Your task to perform on an android device: turn off improve location accuracy Image 0: 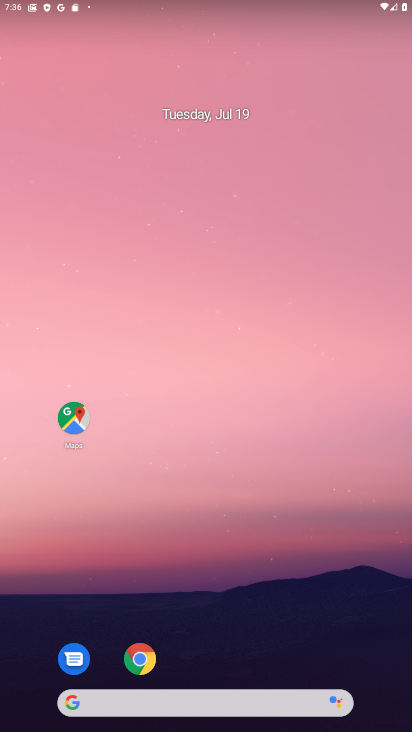
Step 0: click (147, 659)
Your task to perform on an android device: turn off improve location accuracy Image 1: 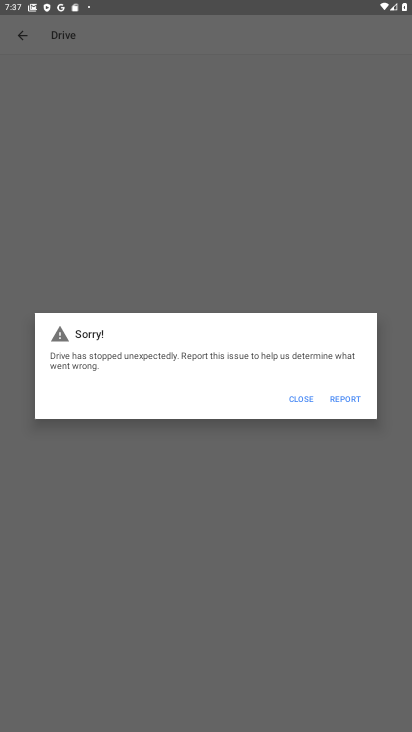
Step 1: click (134, 657)
Your task to perform on an android device: turn off improve location accuracy Image 2: 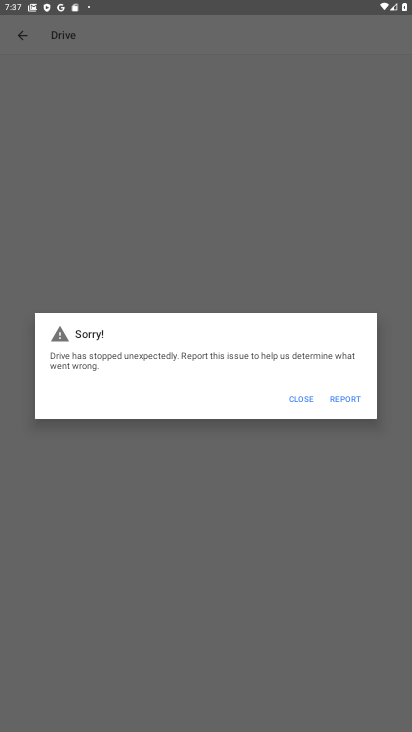
Step 2: press home button
Your task to perform on an android device: turn off improve location accuracy Image 3: 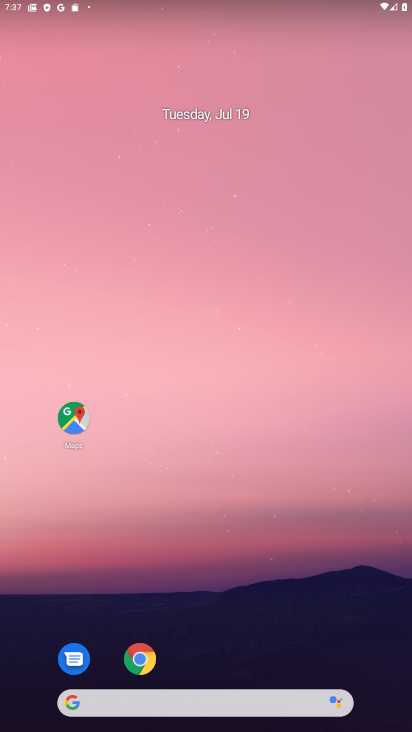
Step 3: drag from (232, 661) to (206, 5)
Your task to perform on an android device: turn off improve location accuracy Image 4: 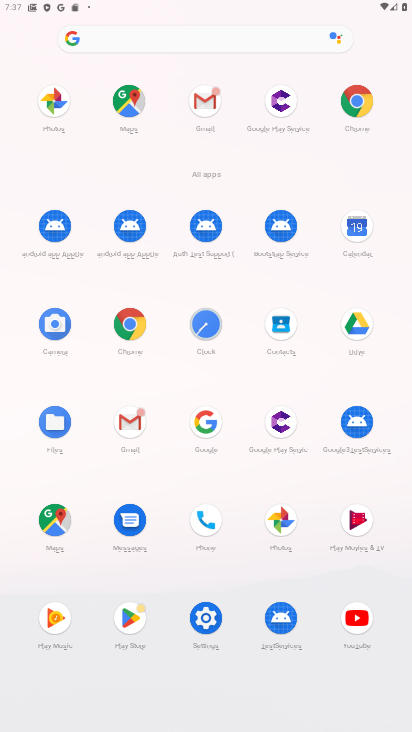
Step 4: click (204, 632)
Your task to perform on an android device: turn off improve location accuracy Image 5: 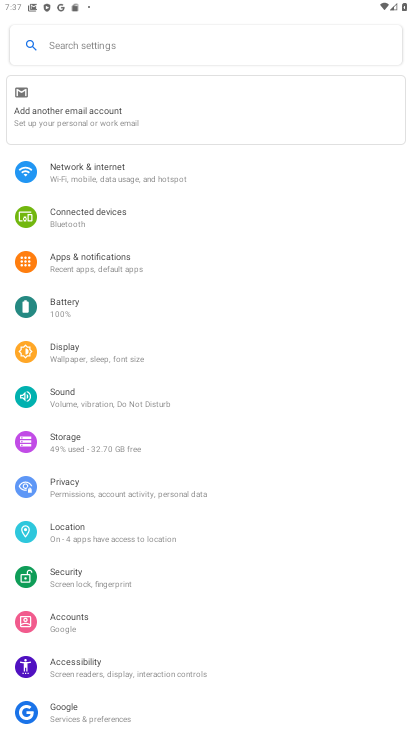
Step 5: click (96, 539)
Your task to perform on an android device: turn off improve location accuracy Image 6: 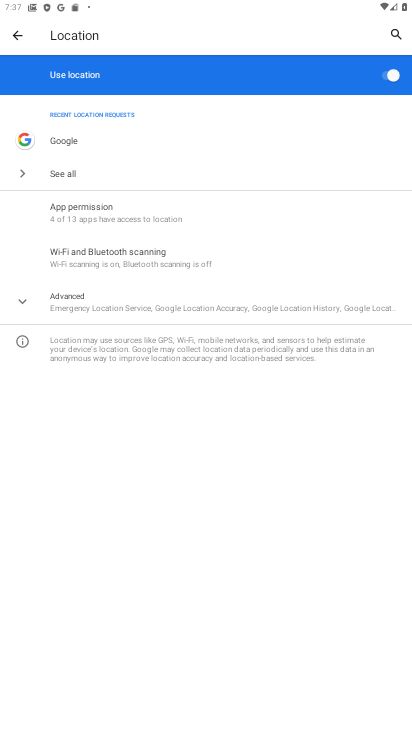
Step 6: click (75, 308)
Your task to perform on an android device: turn off improve location accuracy Image 7: 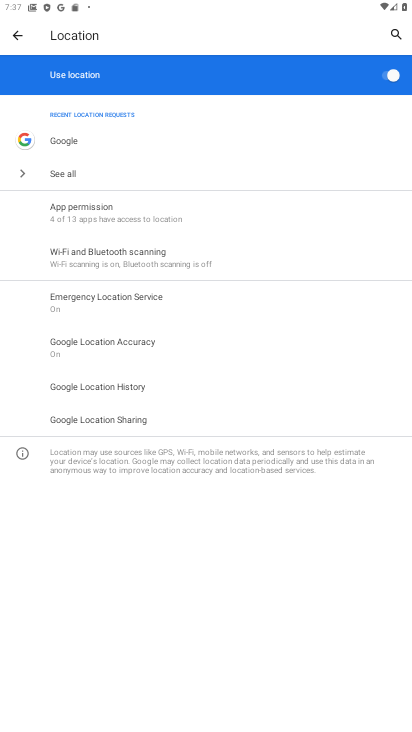
Step 7: click (125, 343)
Your task to perform on an android device: turn off improve location accuracy Image 8: 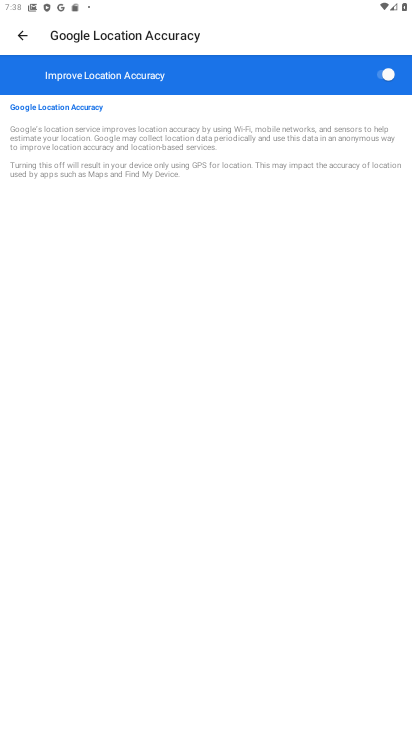
Step 8: click (356, 82)
Your task to perform on an android device: turn off improve location accuracy Image 9: 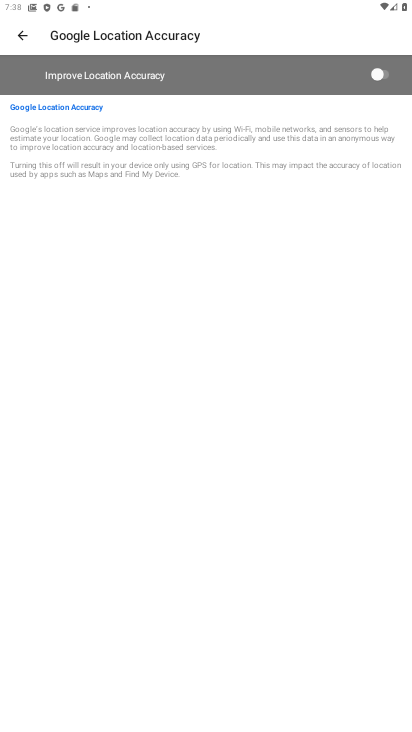
Step 9: task complete